Your task to perform on an android device: change the upload size in google photos Image 0: 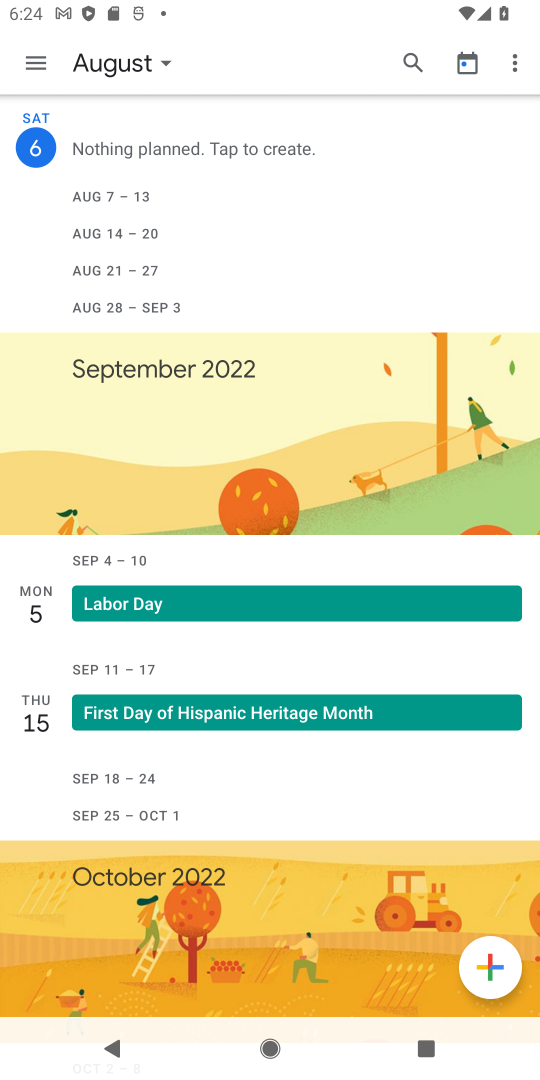
Step 0: press home button
Your task to perform on an android device: change the upload size in google photos Image 1: 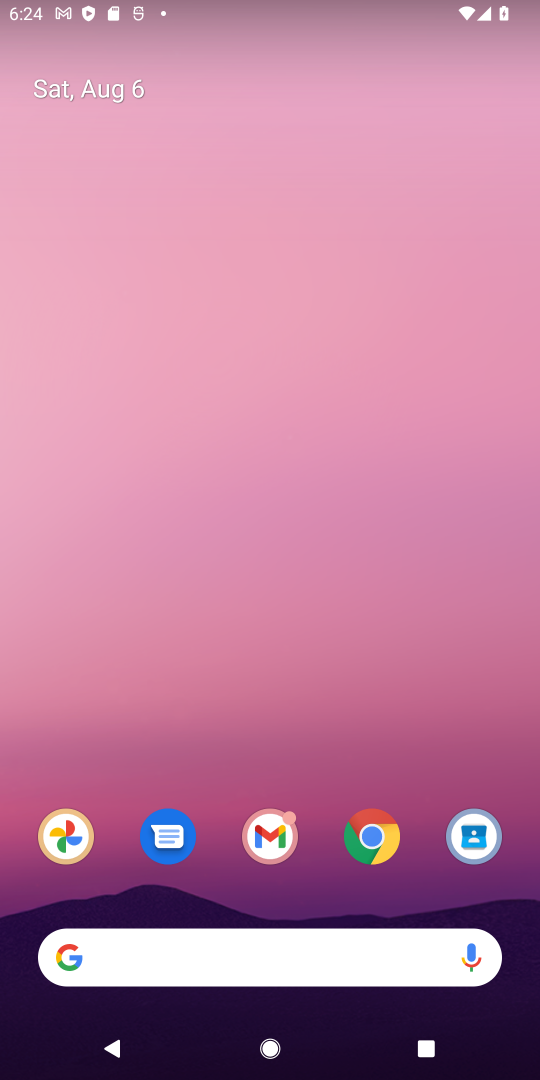
Step 1: drag from (484, 917) to (328, 28)
Your task to perform on an android device: change the upload size in google photos Image 2: 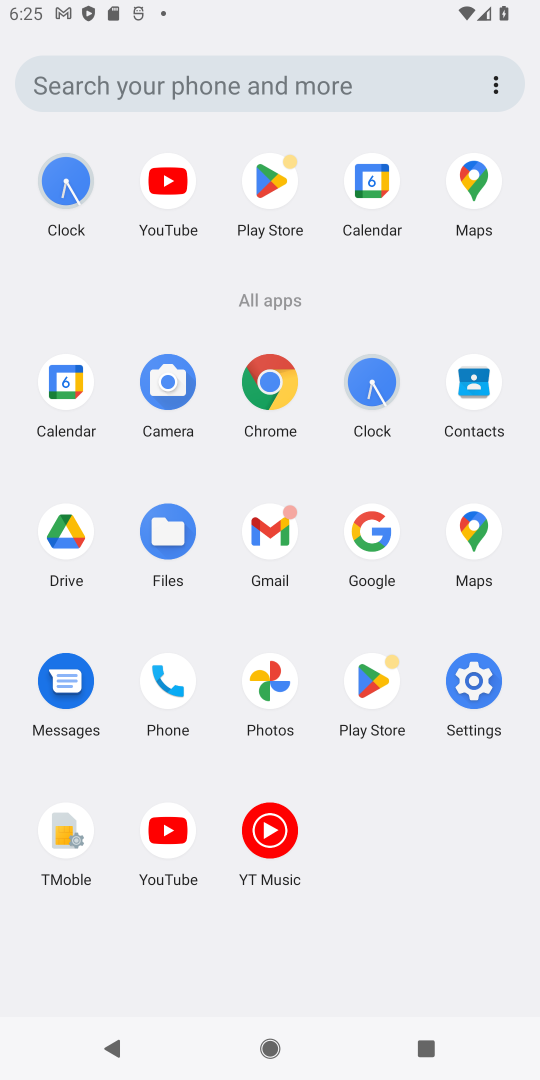
Step 2: click (273, 680)
Your task to perform on an android device: change the upload size in google photos Image 3: 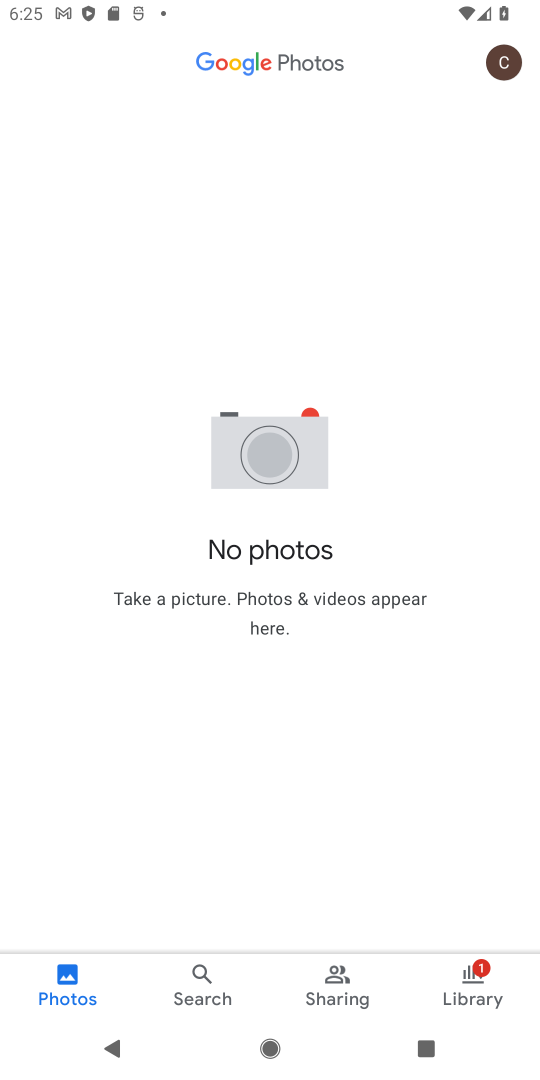
Step 3: task complete